Your task to perform on an android device: Clear all items from cart on amazon.com. Image 0: 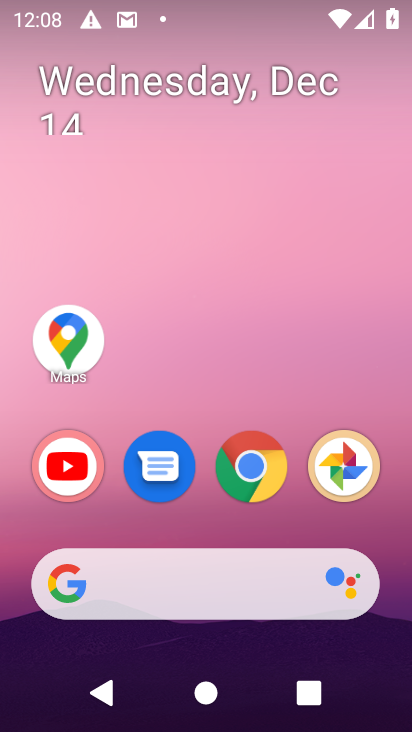
Step 0: click (139, 608)
Your task to perform on an android device: Clear all items from cart on amazon.com. Image 1: 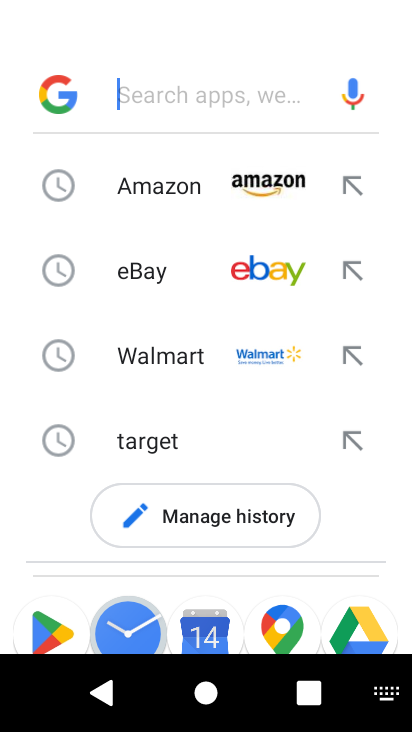
Step 1: click (229, 177)
Your task to perform on an android device: Clear all items from cart on amazon.com. Image 2: 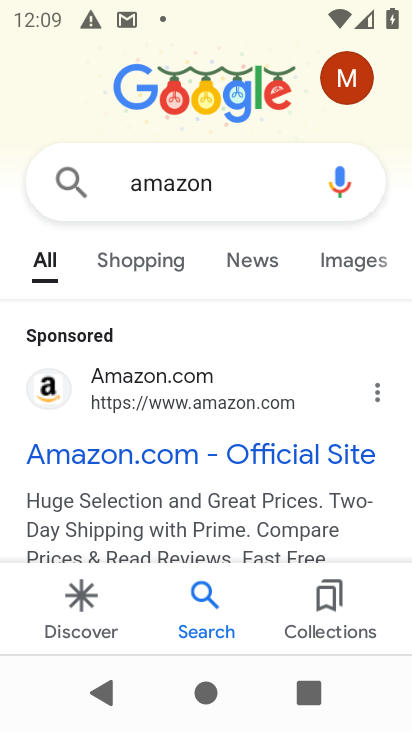
Step 2: click (176, 452)
Your task to perform on an android device: Clear all items from cart on amazon.com. Image 3: 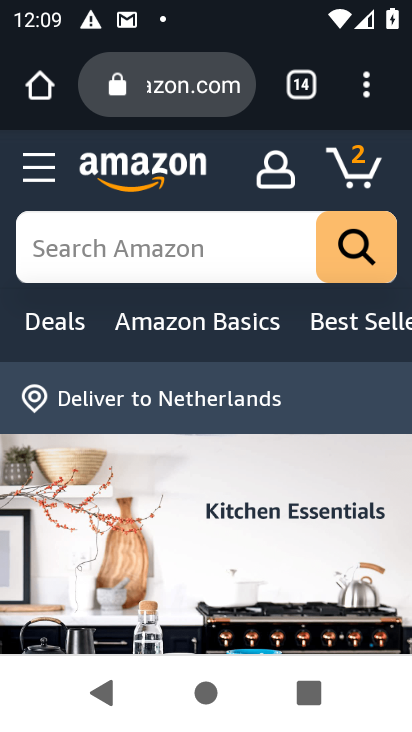
Step 3: click (359, 159)
Your task to perform on an android device: Clear all items from cart on amazon.com. Image 4: 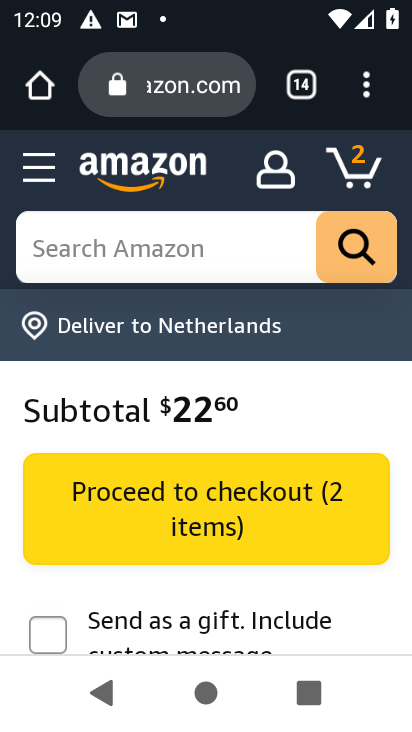
Step 4: drag from (210, 392) to (210, 289)
Your task to perform on an android device: Clear all items from cart on amazon.com. Image 5: 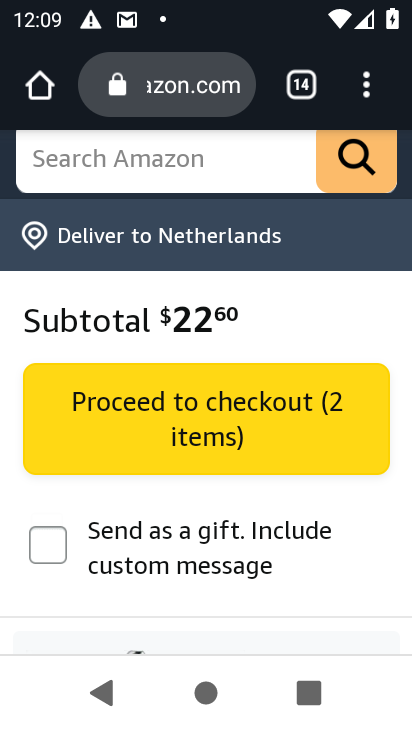
Step 5: drag from (147, 541) to (158, 410)
Your task to perform on an android device: Clear all items from cart on amazon.com. Image 6: 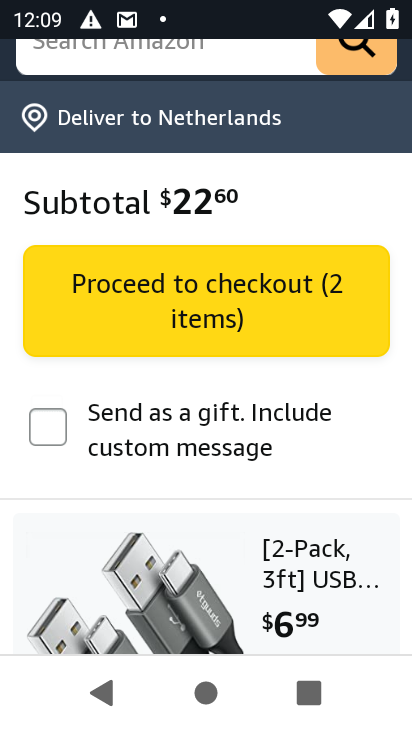
Step 6: drag from (192, 475) to (183, 301)
Your task to perform on an android device: Clear all items from cart on amazon.com. Image 7: 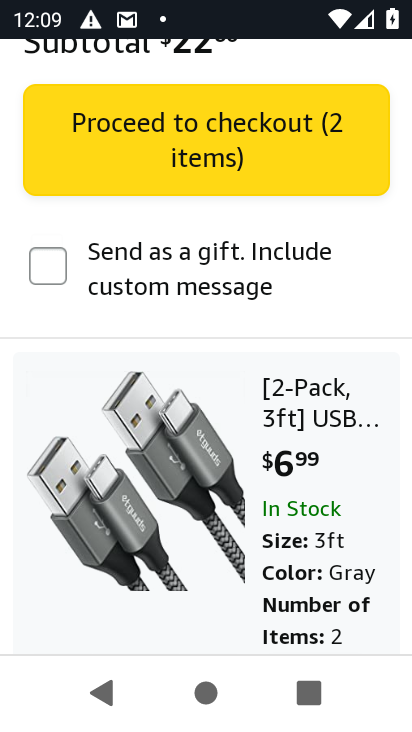
Step 7: drag from (160, 607) to (162, 410)
Your task to perform on an android device: Clear all items from cart on amazon.com. Image 8: 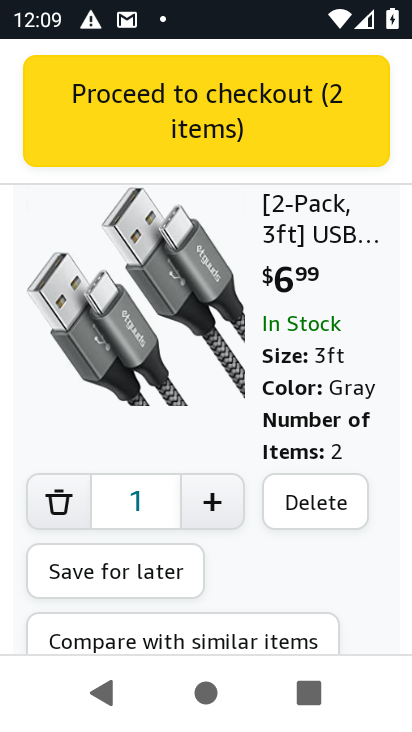
Step 8: click (312, 504)
Your task to perform on an android device: Clear all items from cart on amazon.com. Image 9: 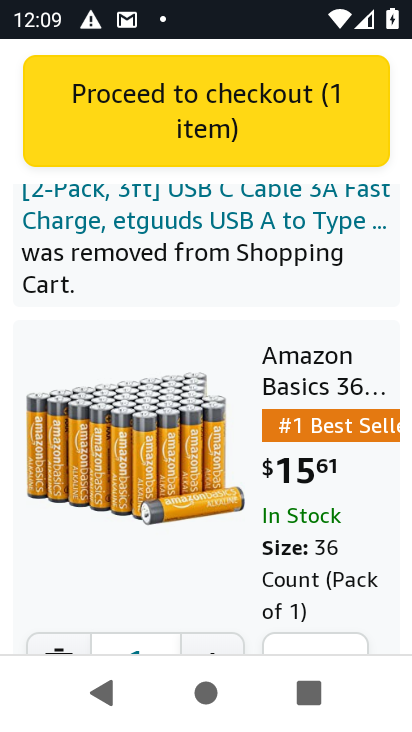
Step 9: drag from (355, 562) to (314, 288)
Your task to perform on an android device: Clear all items from cart on amazon.com. Image 10: 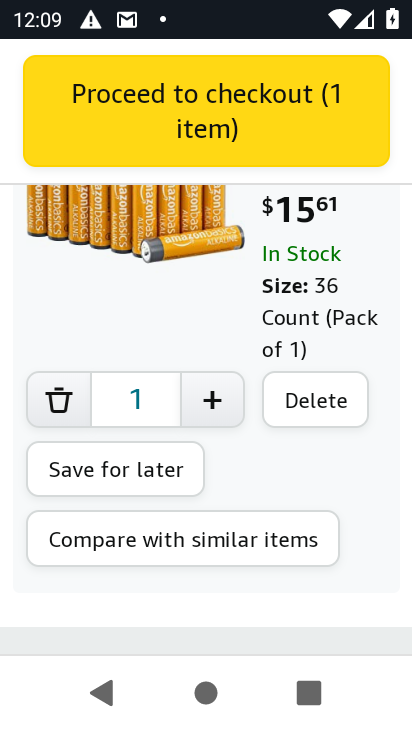
Step 10: click (299, 401)
Your task to perform on an android device: Clear all items from cart on amazon.com. Image 11: 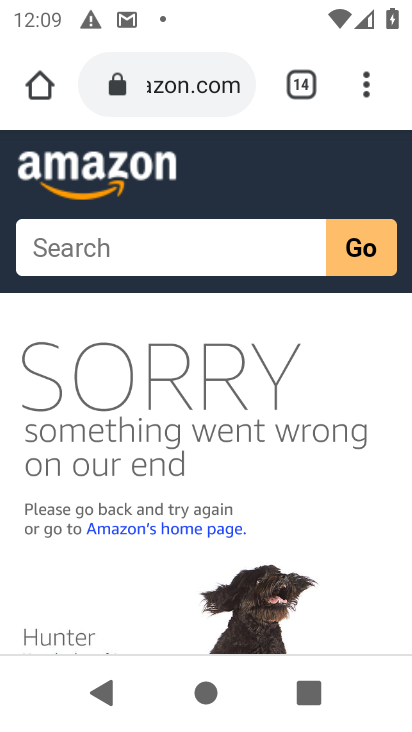
Step 11: click (339, 330)
Your task to perform on an android device: Clear all items from cart on amazon.com. Image 12: 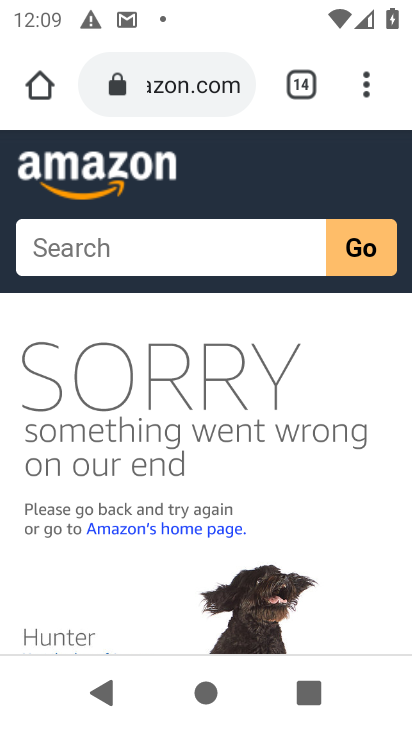
Step 12: task complete